Your task to perform on an android device: Open the Play Movies app and select the watchlist tab. Image 0: 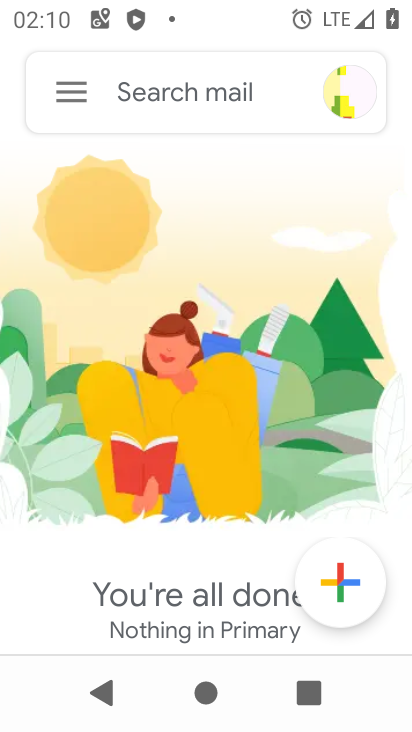
Step 0: press home button
Your task to perform on an android device: Open the Play Movies app and select the watchlist tab. Image 1: 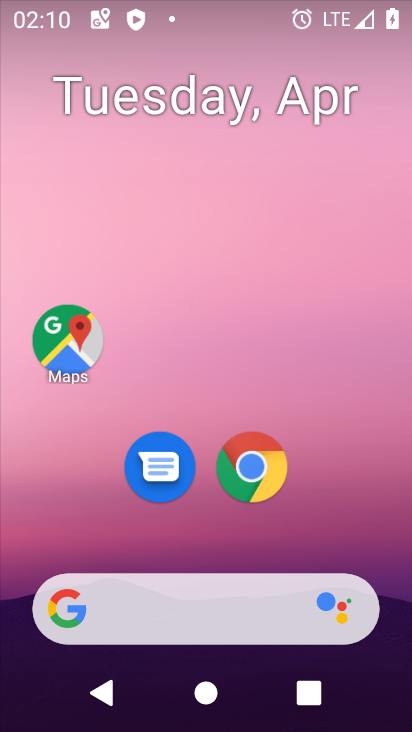
Step 1: drag from (385, 547) to (365, 114)
Your task to perform on an android device: Open the Play Movies app and select the watchlist tab. Image 2: 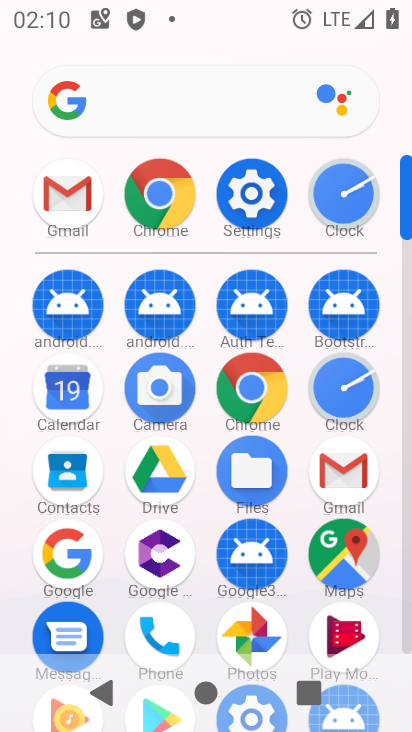
Step 2: drag from (401, 540) to (396, 281)
Your task to perform on an android device: Open the Play Movies app and select the watchlist tab. Image 3: 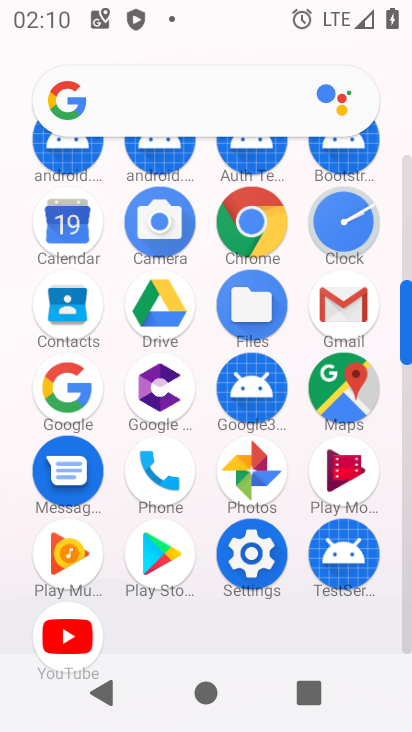
Step 3: click (323, 474)
Your task to perform on an android device: Open the Play Movies app and select the watchlist tab. Image 4: 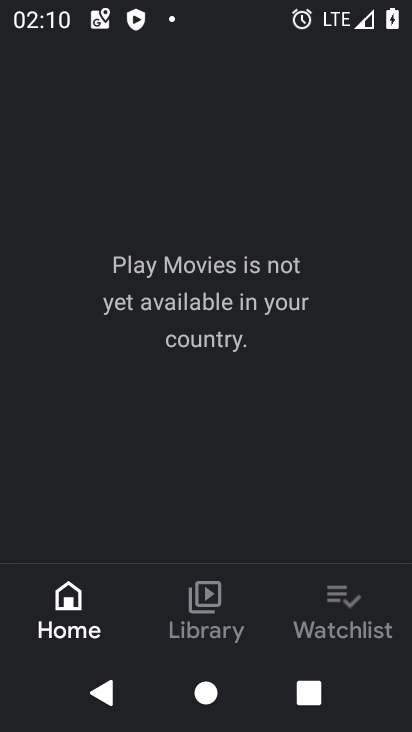
Step 4: click (349, 619)
Your task to perform on an android device: Open the Play Movies app and select the watchlist tab. Image 5: 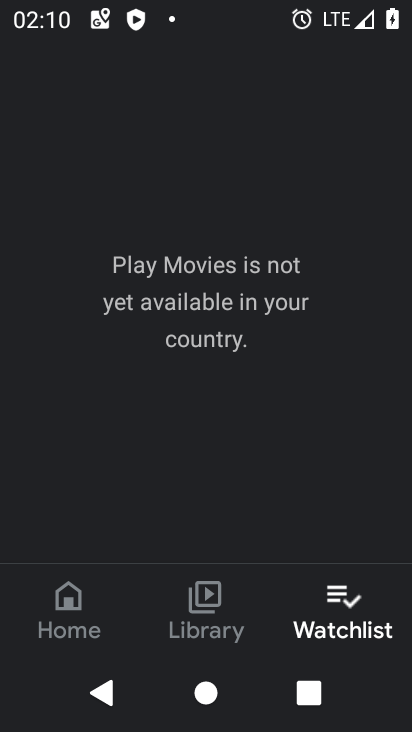
Step 5: task complete